Your task to perform on an android device: turn off sleep mode Image 0: 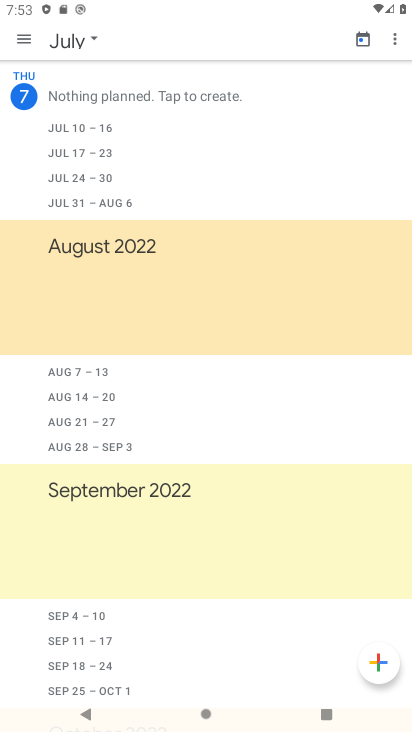
Step 0: press home button
Your task to perform on an android device: turn off sleep mode Image 1: 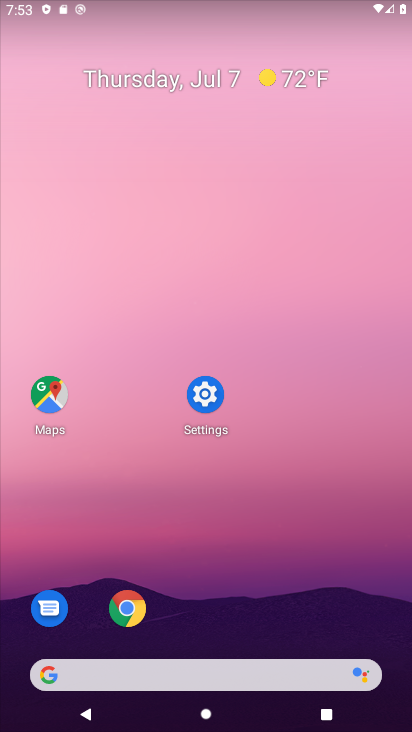
Step 1: click (204, 412)
Your task to perform on an android device: turn off sleep mode Image 2: 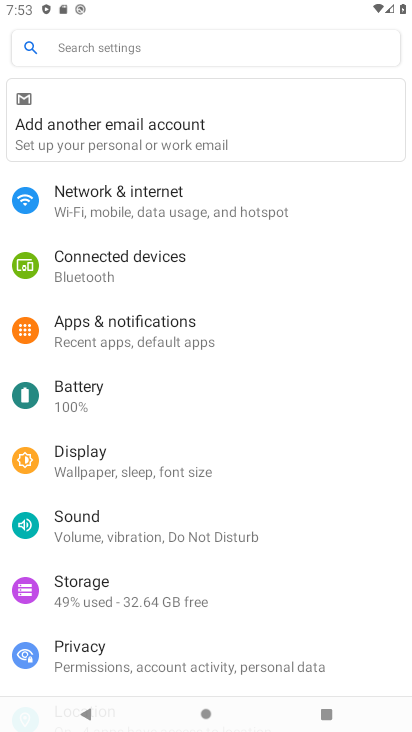
Step 2: click (83, 456)
Your task to perform on an android device: turn off sleep mode Image 3: 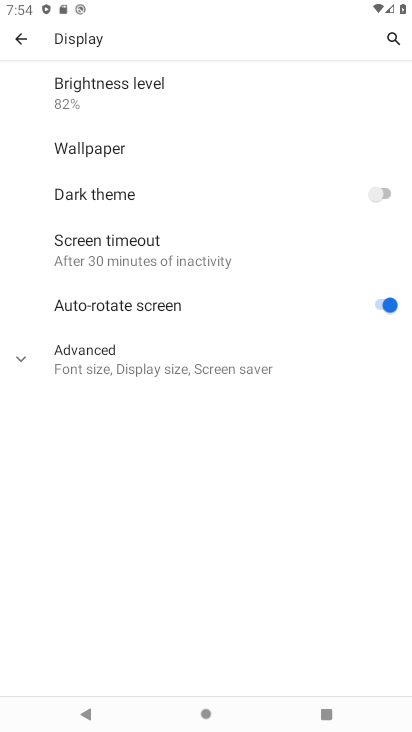
Step 3: click (99, 255)
Your task to perform on an android device: turn off sleep mode Image 4: 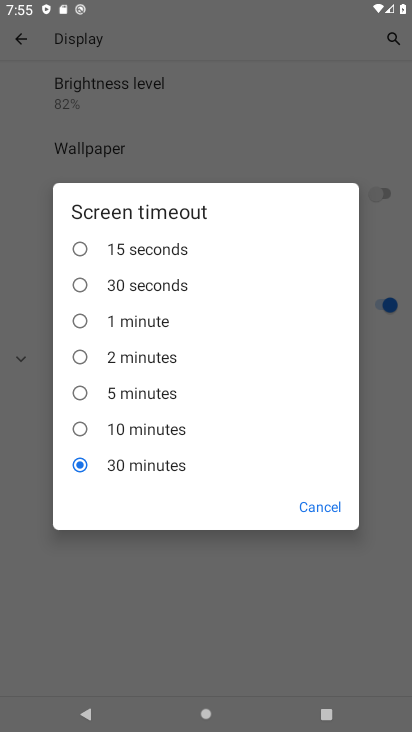
Step 4: click (75, 426)
Your task to perform on an android device: turn off sleep mode Image 5: 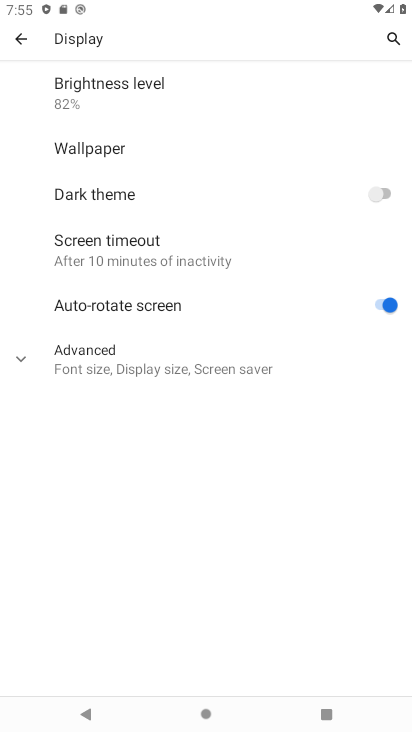
Step 5: task complete